Your task to perform on an android device: open app "Messenger Lite" Image 0: 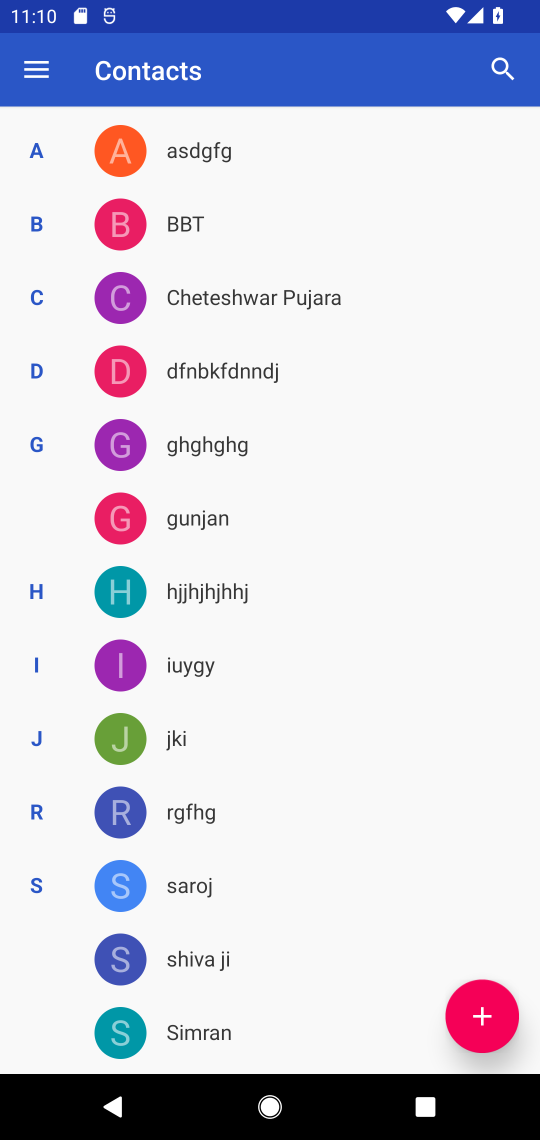
Step 0: press home button
Your task to perform on an android device: open app "Messenger Lite" Image 1: 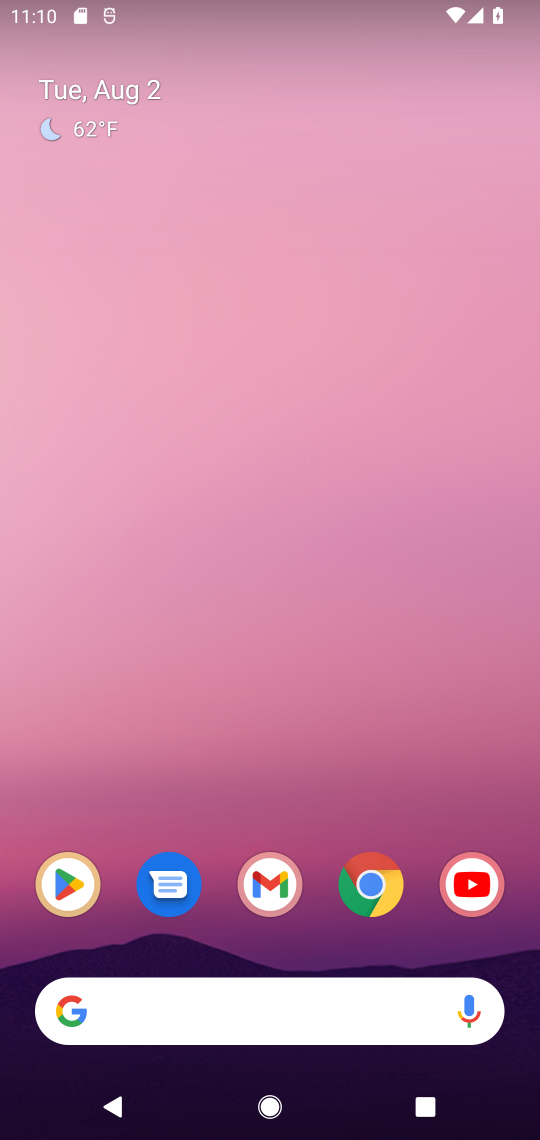
Step 1: click (60, 881)
Your task to perform on an android device: open app "Messenger Lite" Image 2: 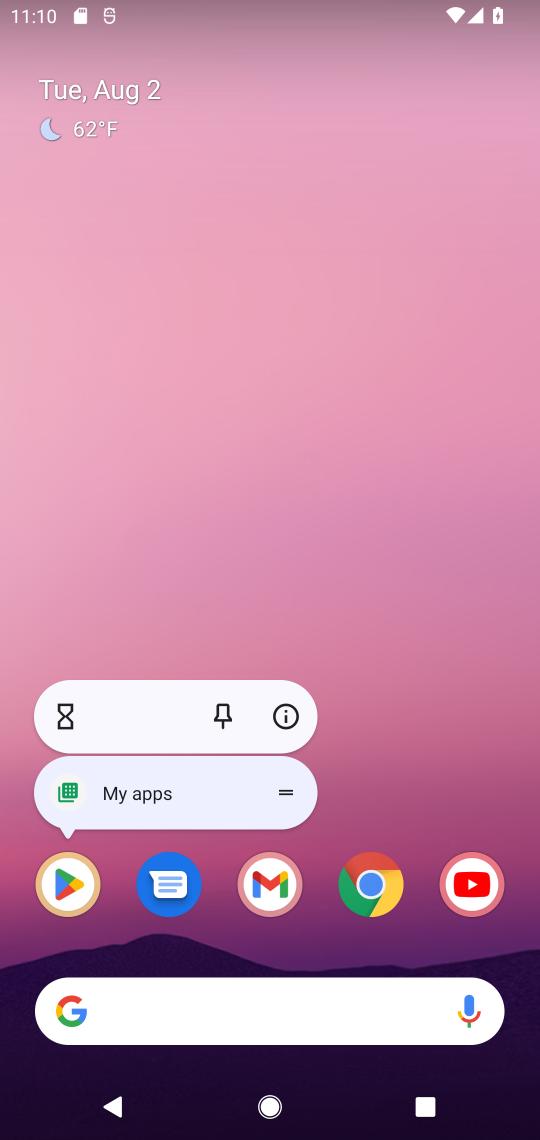
Step 2: click (81, 879)
Your task to perform on an android device: open app "Messenger Lite" Image 3: 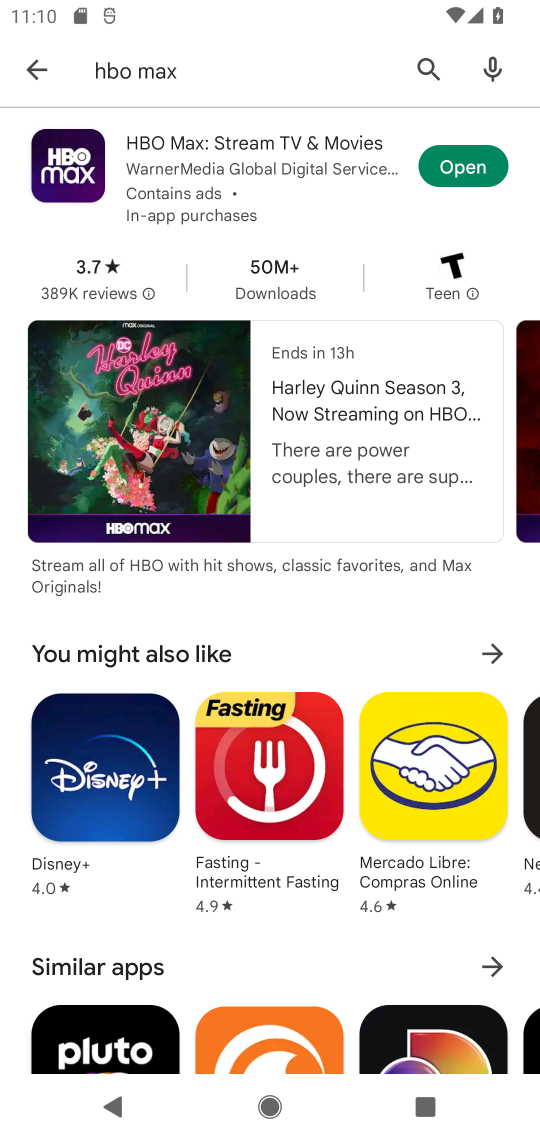
Step 3: click (237, 73)
Your task to perform on an android device: open app "Messenger Lite" Image 4: 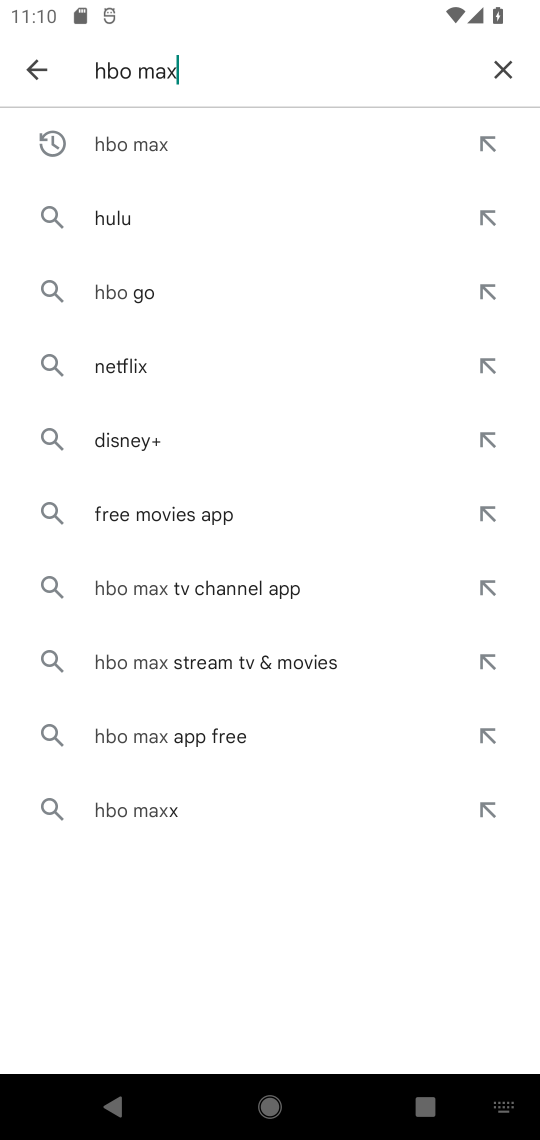
Step 4: click (502, 70)
Your task to perform on an android device: open app "Messenger Lite" Image 5: 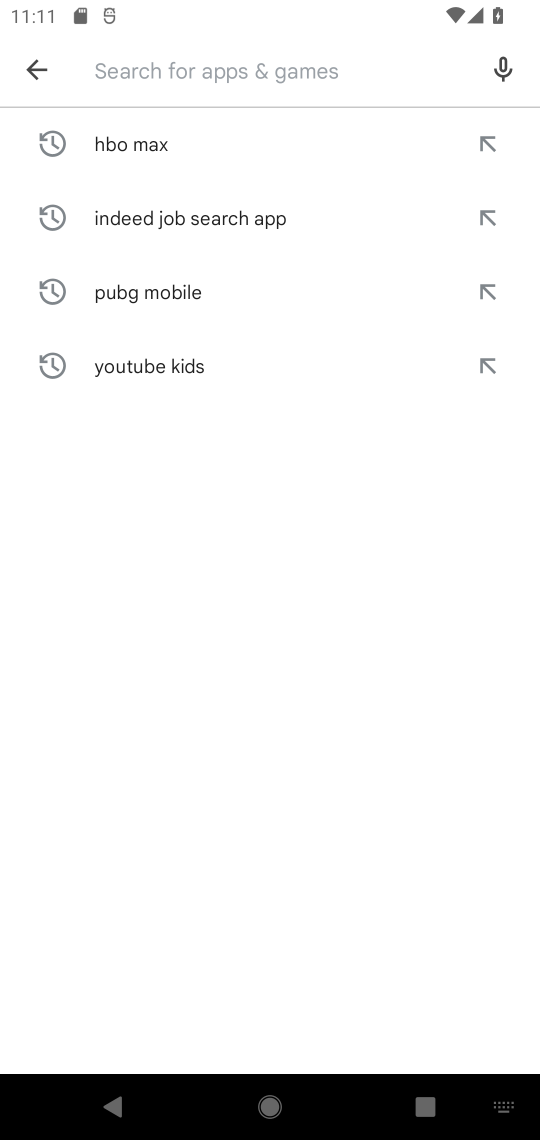
Step 5: type "messenger lite"
Your task to perform on an android device: open app "Messenger Lite" Image 6: 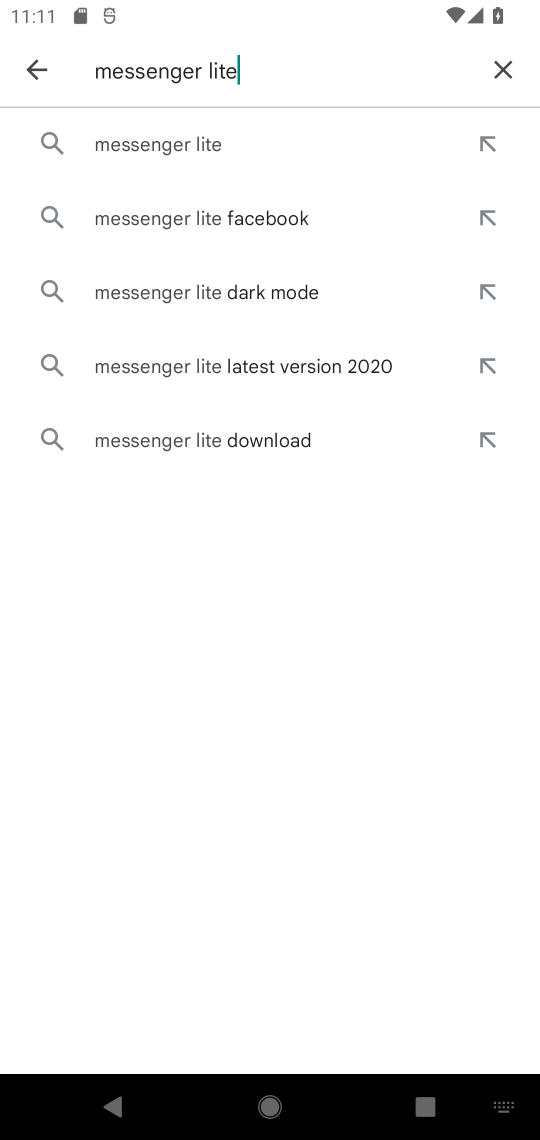
Step 6: click (176, 161)
Your task to perform on an android device: open app "Messenger Lite" Image 7: 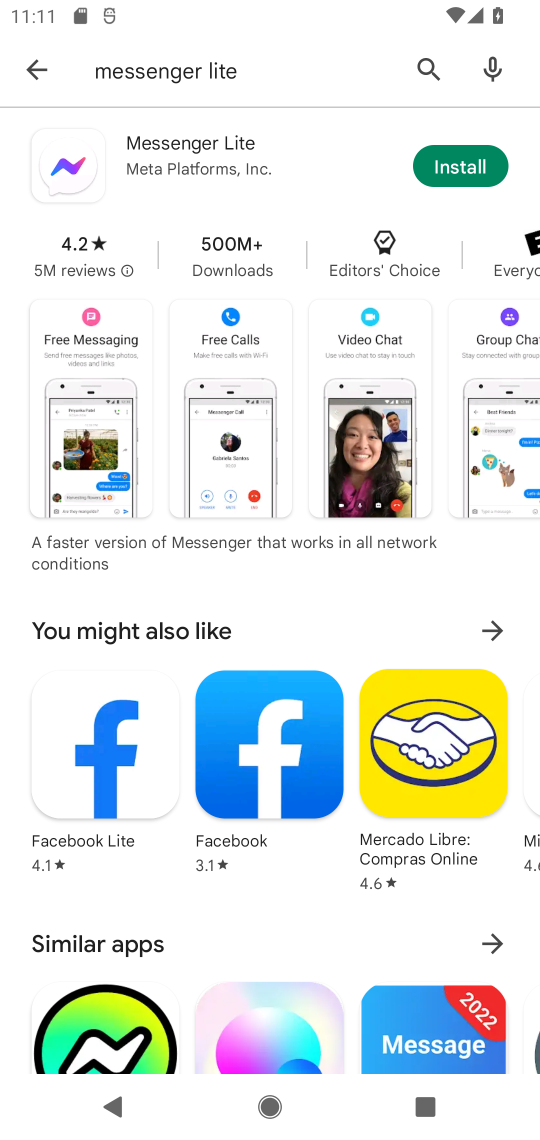
Step 7: task complete